Your task to perform on an android device: toggle sleep mode Image 0: 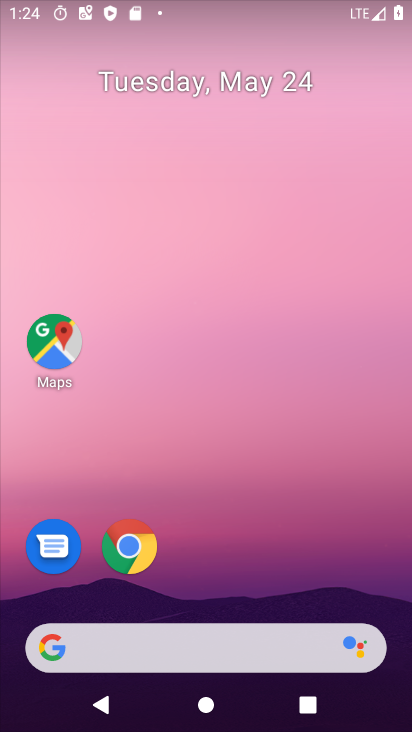
Step 0: drag from (196, 608) to (255, 145)
Your task to perform on an android device: toggle sleep mode Image 1: 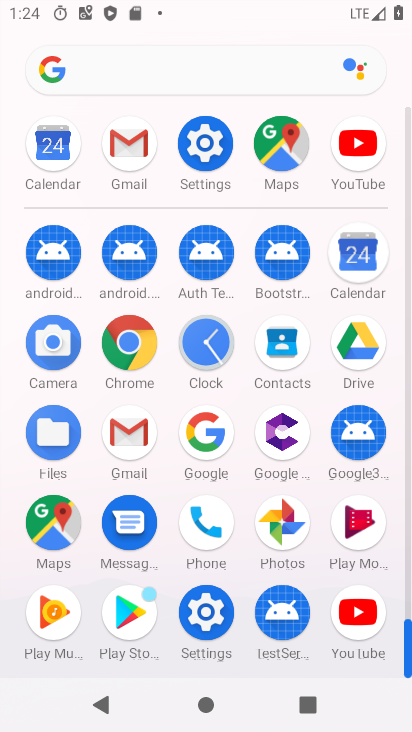
Step 1: click (205, 149)
Your task to perform on an android device: toggle sleep mode Image 2: 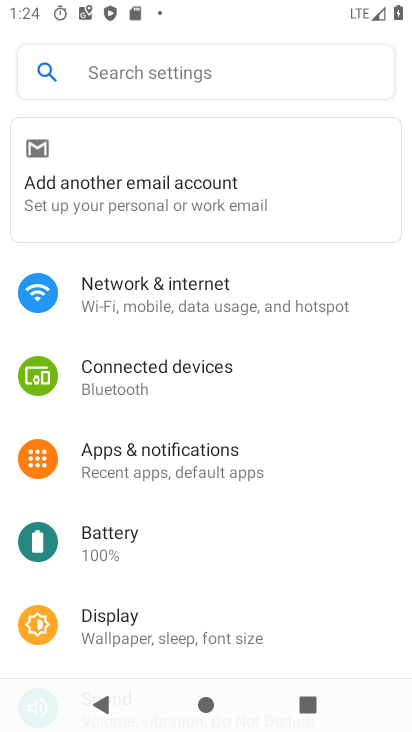
Step 2: drag from (183, 545) to (273, 243)
Your task to perform on an android device: toggle sleep mode Image 3: 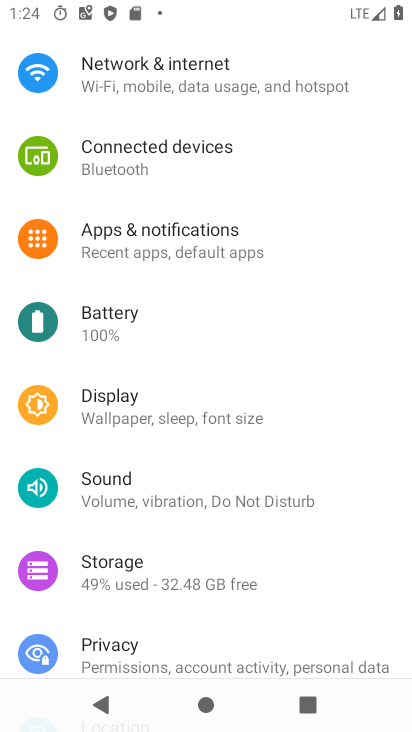
Step 3: click (140, 409)
Your task to perform on an android device: toggle sleep mode Image 4: 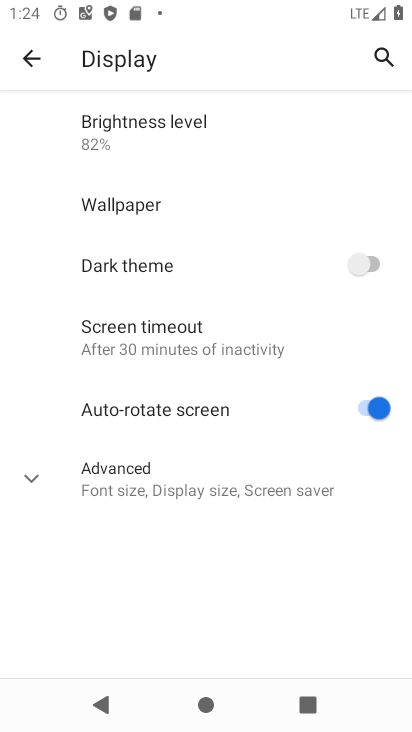
Step 4: click (206, 342)
Your task to perform on an android device: toggle sleep mode Image 5: 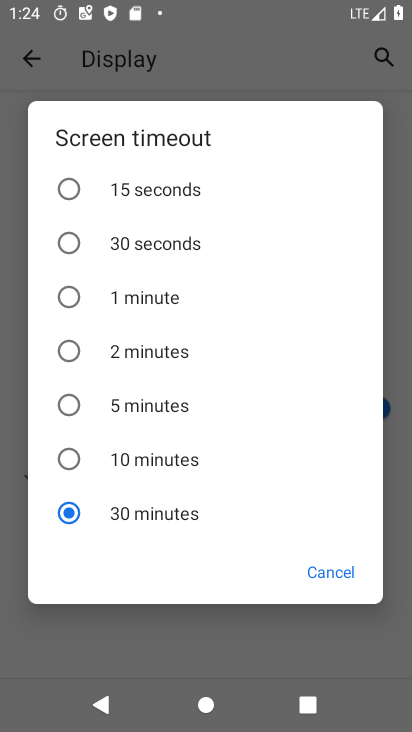
Step 5: task complete